Your task to perform on an android device: read, delete, or share a saved page in the chrome app Image 0: 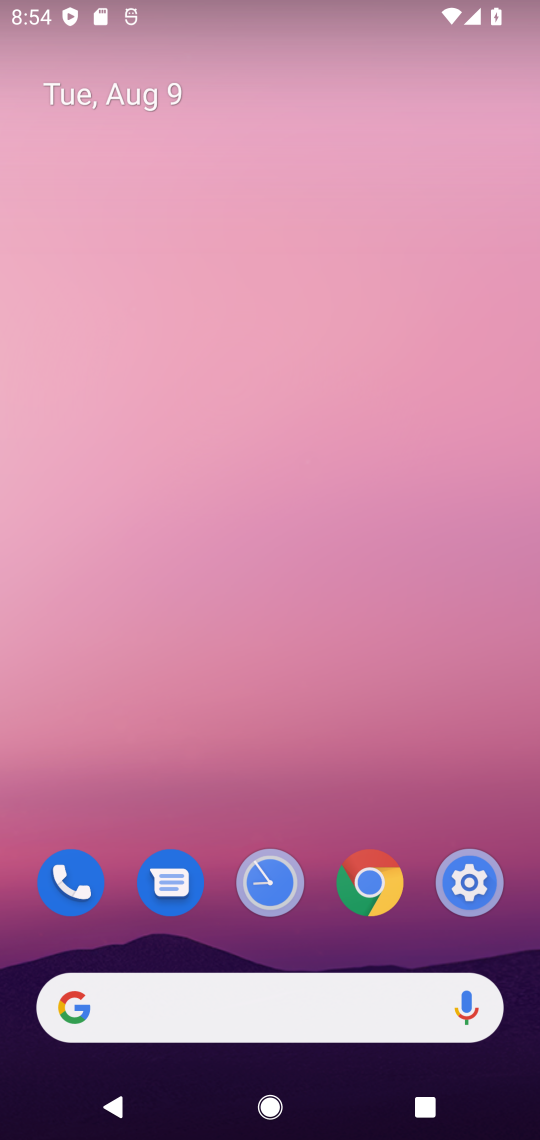
Step 0: press home button
Your task to perform on an android device: read, delete, or share a saved page in the chrome app Image 1: 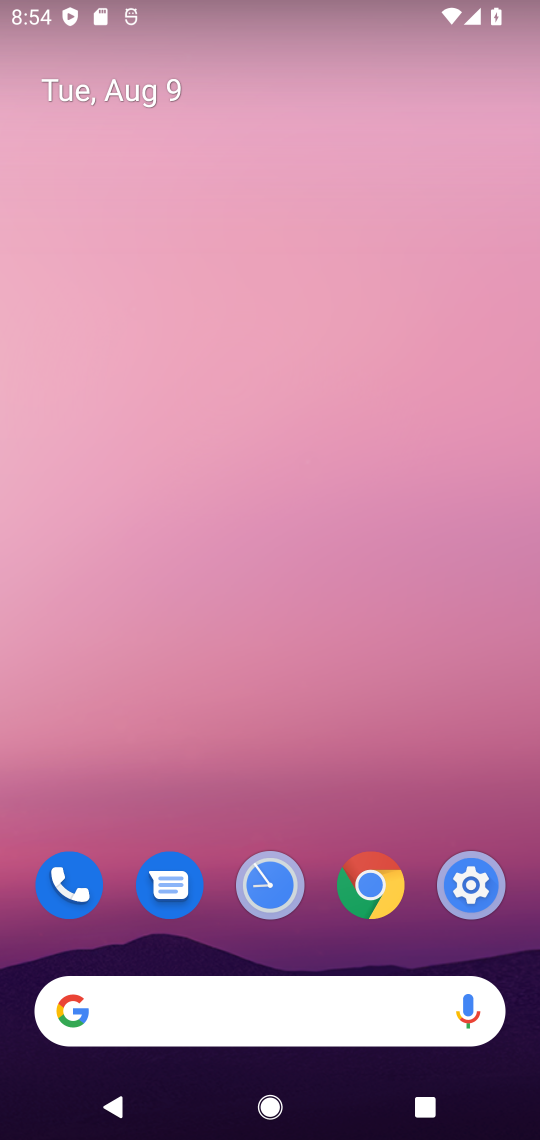
Step 1: click (363, 880)
Your task to perform on an android device: read, delete, or share a saved page in the chrome app Image 2: 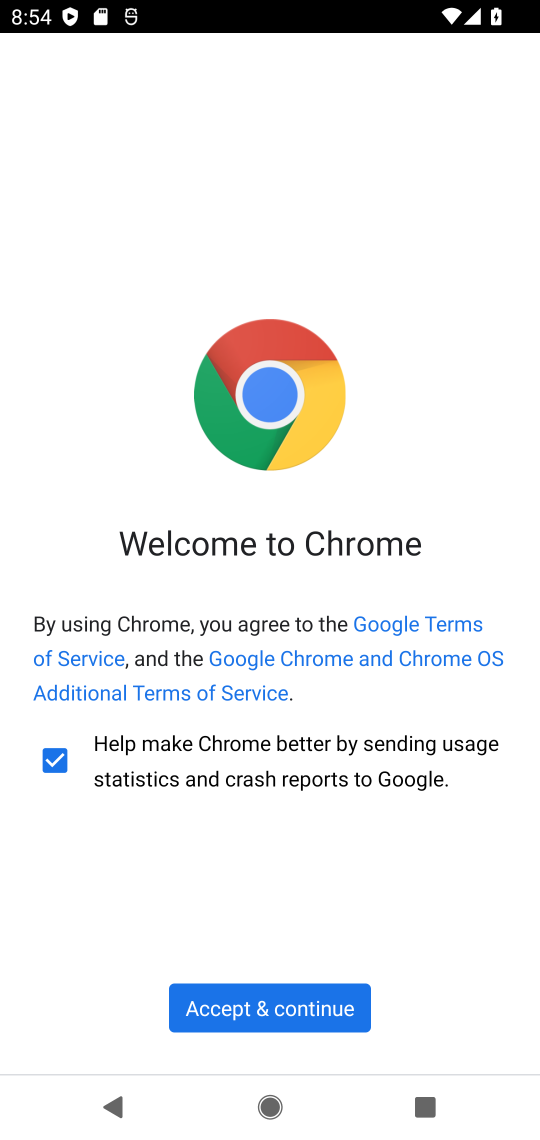
Step 2: click (262, 1005)
Your task to perform on an android device: read, delete, or share a saved page in the chrome app Image 3: 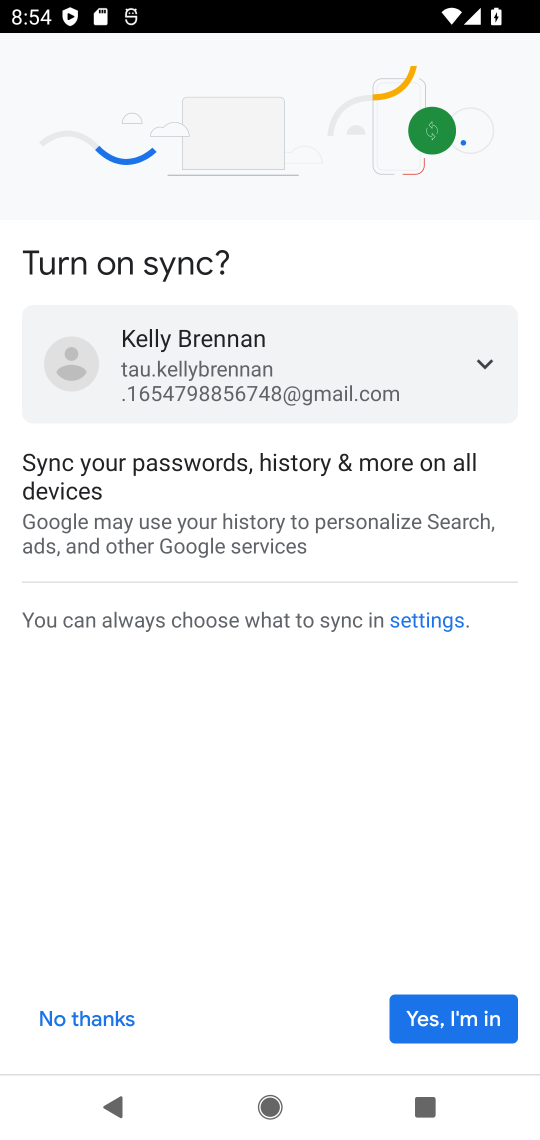
Step 3: click (468, 1013)
Your task to perform on an android device: read, delete, or share a saved page in the chrome app Image 4: 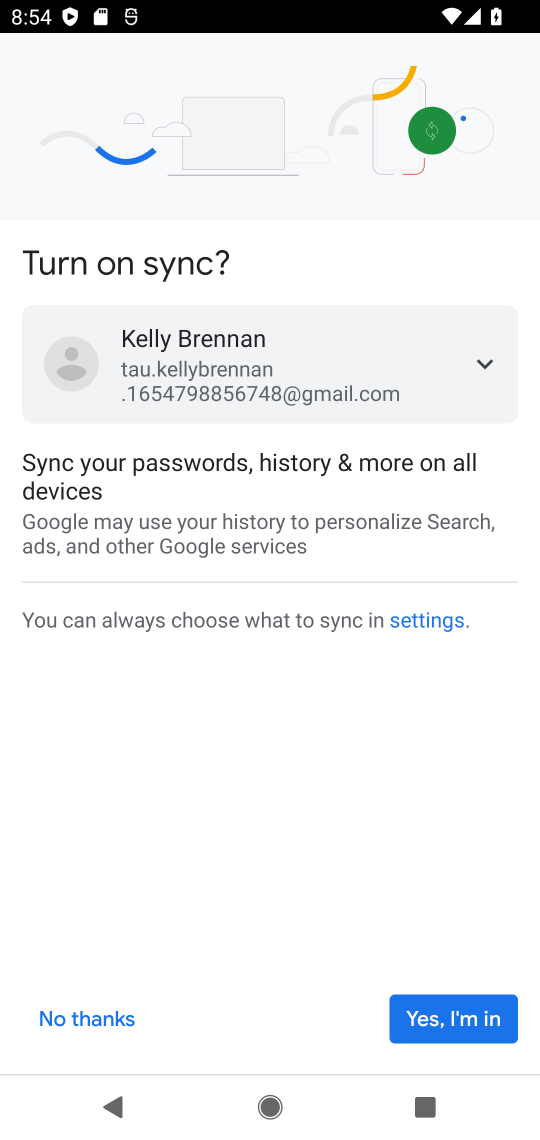
Step 4: click (468, 1013)
Your task to perform on an android device: read, delete, or share a saved page in the chrome app Image 5: 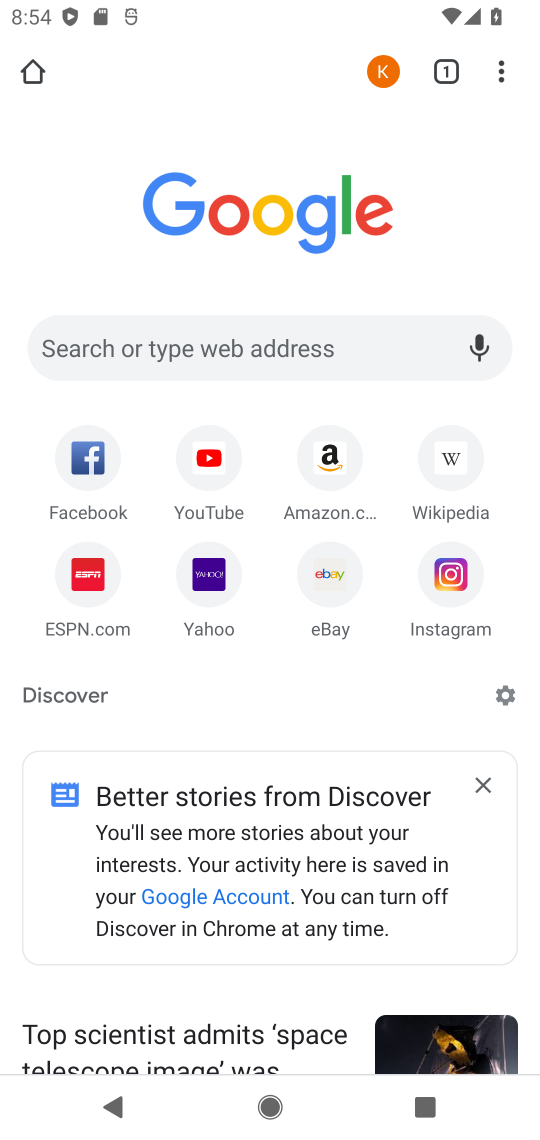
Step 5: click (502, 70)
Your task to perform on an android device: read, delete, or share a saved page in the chrome app Image 6: 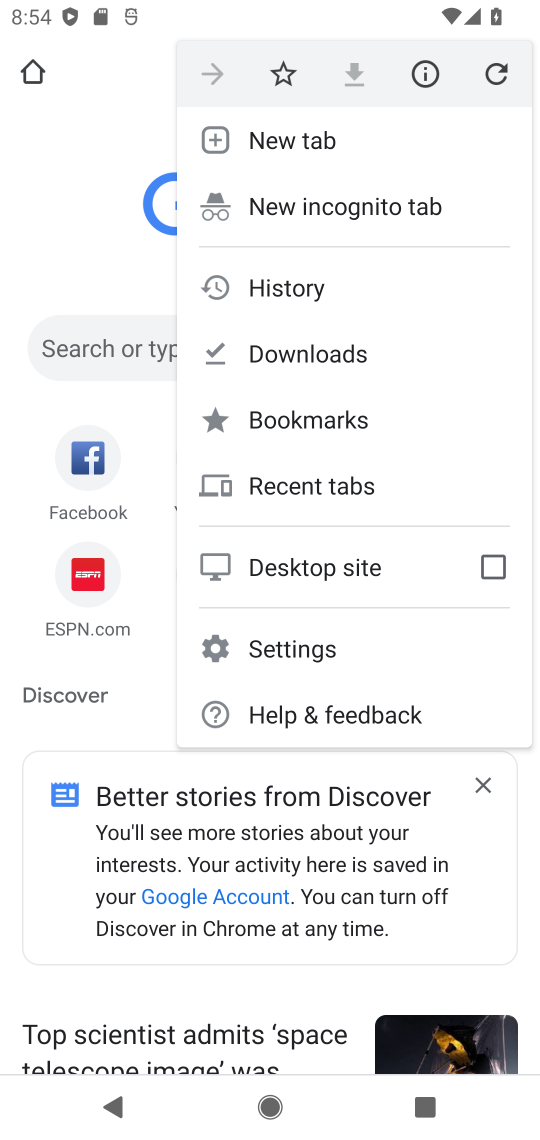
Step 6: click (366, 351)
Your task to perform on an android device: read, delete, or share a saved page in the chrome app Image 7: 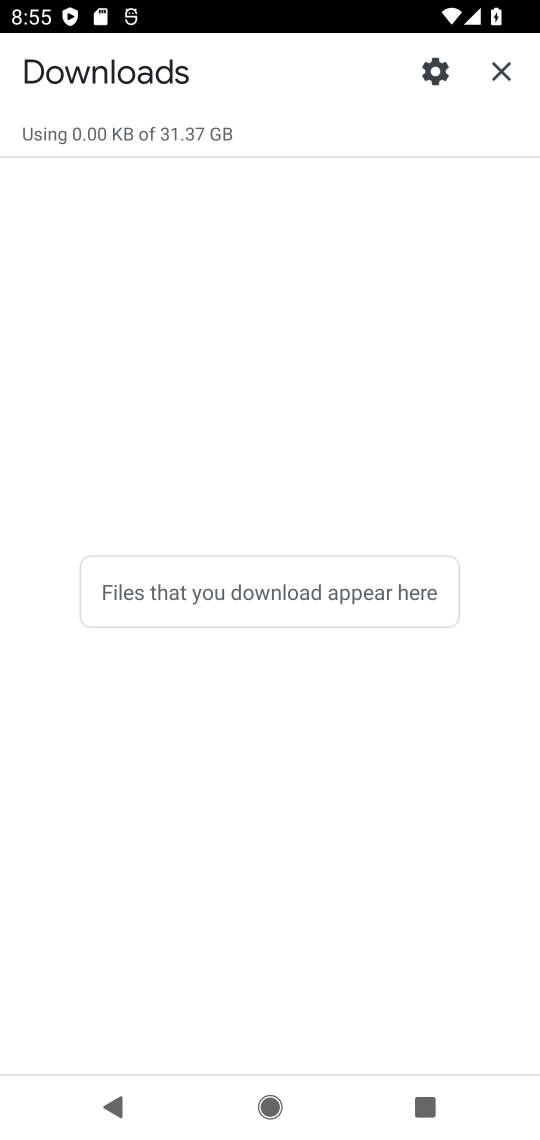
Step 7: task complete